Your task to perform on an android device: What's on my calendar tomorrow? Image 0: 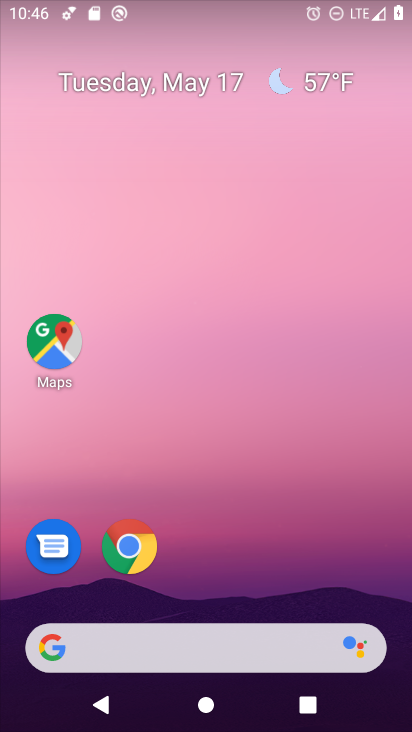
Step 0: drag from (291, 577) to (280, 17)
Your task to perform on an android device: What's on my calendar tomorrow? Image 1: 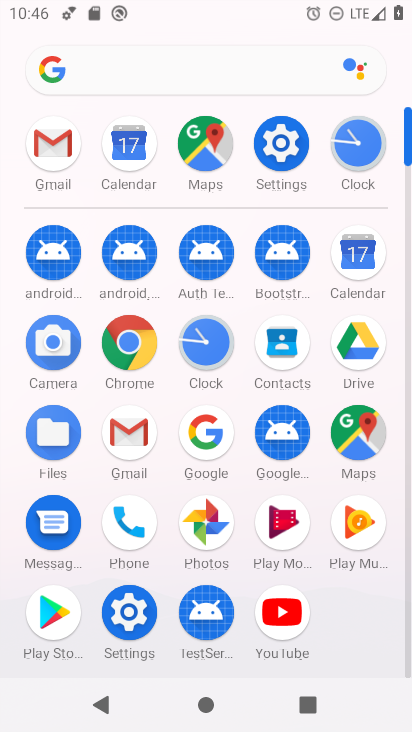
Step 1: click (125, 161)
Your task to perform on an android device: What's on my calendar tomorrow? Image 2: 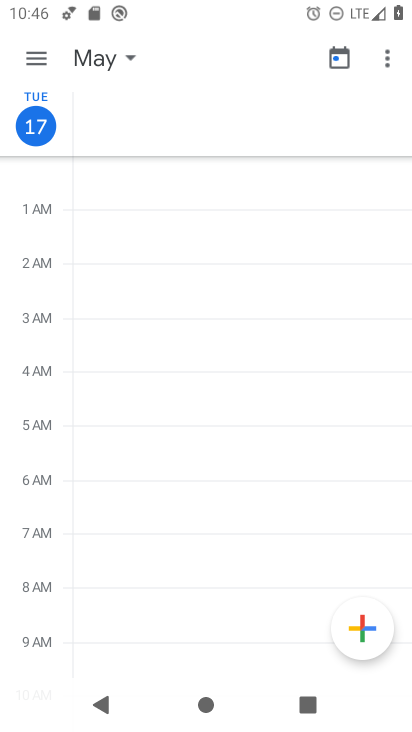
Step 2: click (134, 55)
Your task to perform on an android device: What's on my calendar tomorrow? Image 3: 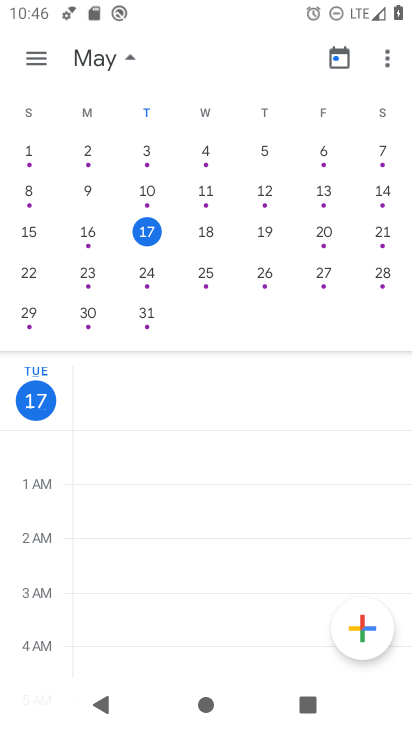
Step 3: click (26, 62)
Your task to perform on an android device: What's on my calendar tomorrow? Image 4: 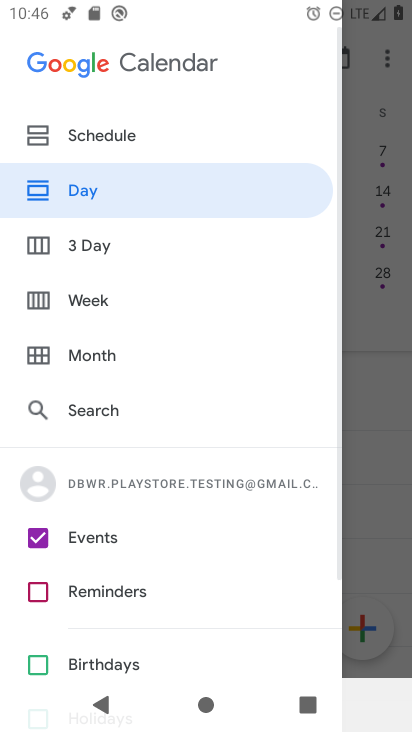
Step 4: click (64, 134)
Your task to perform on an android device: What's on my calendar tomorrow? Image 5: 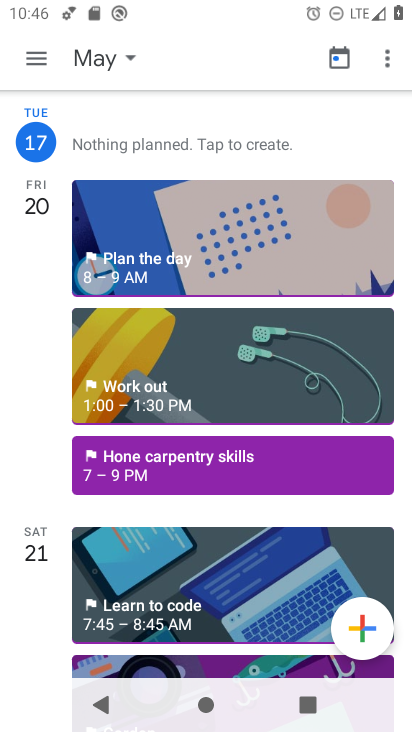
Step 5: drag from (171, 258) to (176, 423)
Your task to perform on an android device: What's on my calendar tomorrow? Image 6: 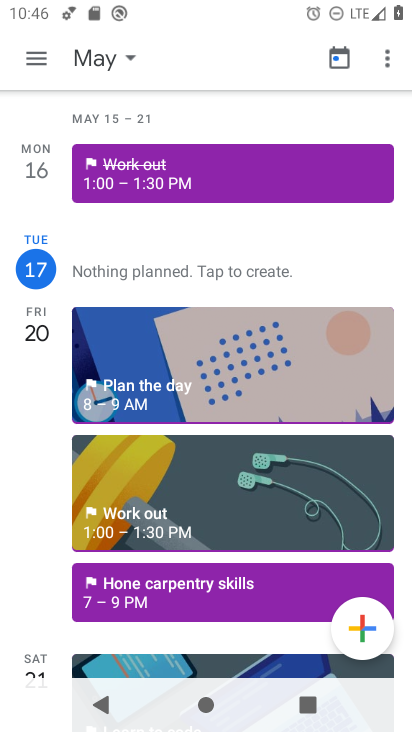
Step 6: click (126, 55)
Your task to perform on an android device: What's on my calendar tomorrow? Image 7: 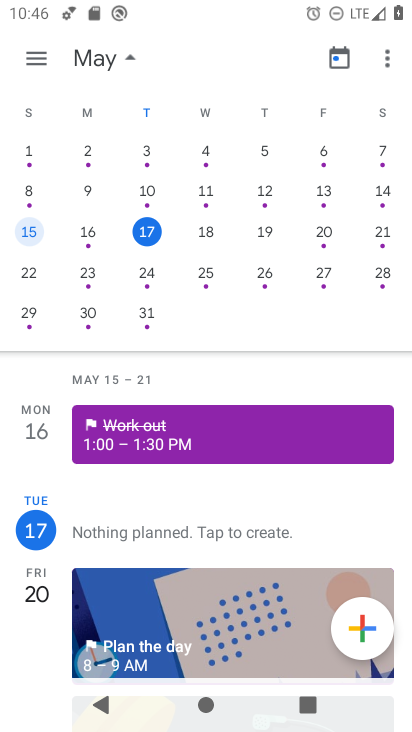
Step 7: click (201, 235)
Your task to perform on an android device: What's on my calendar tomorrow? Image 8: 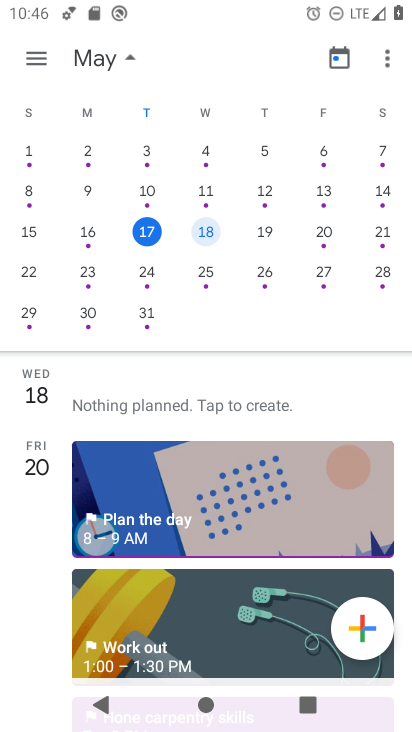
Step 8: click (134, 408)
Your task to perform on an android device: What's on my calendar tomorrow? Image 9: 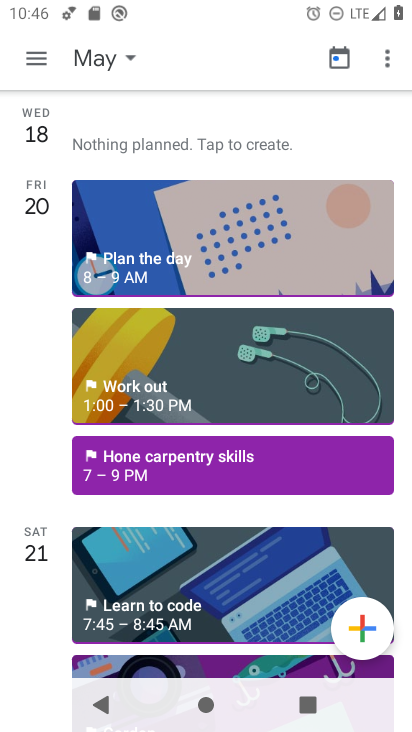
Step 9: click (171, 150)
Your task to perform on an android device: What's on my calendar tomorrow? Image 10: 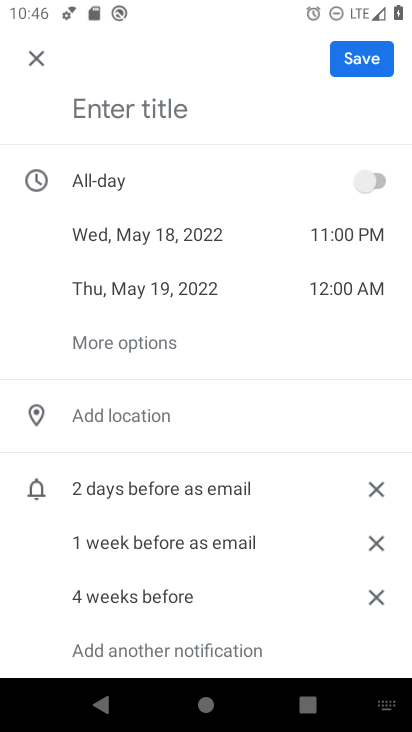
Step 10: task complete